Your task to perform on an android device: turn off location history Image 0: 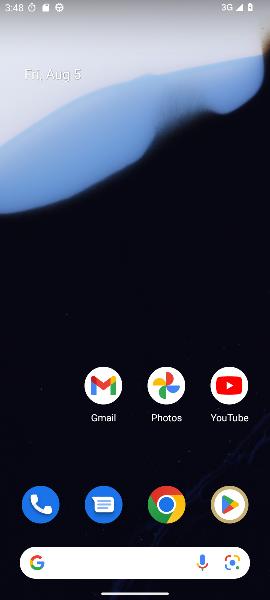
Step 0: drag from (64, 469) to (116, 263)
Your task to perform on an android device: turn off location history Image 1: 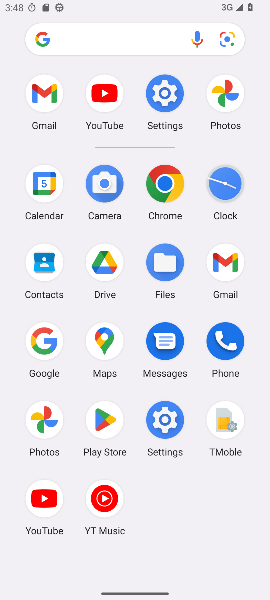
Step 1: click (163, 423)
Your task to perform on an android device: turn off location history Image 2: 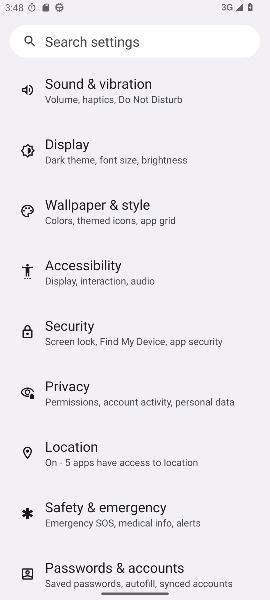
Step 2: click (128, 454)
Your task to perform on an android device: turn off location history Image 3: 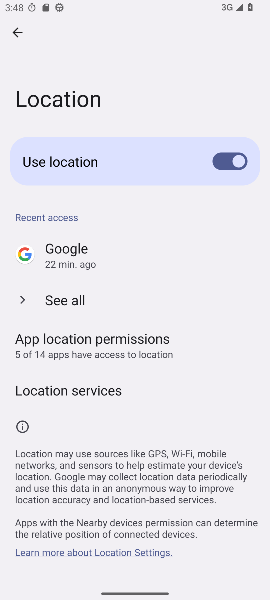
Step 3: drag from (120, 513) to (167, 265)
Your task to perform on an android device: turn off location history Image 4: 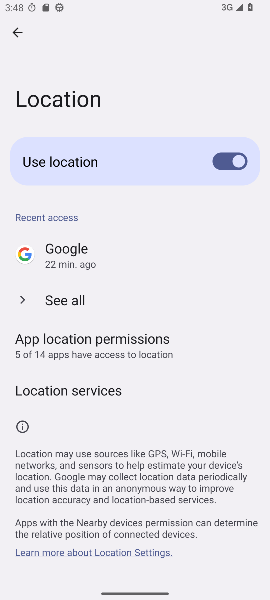
Step 4: click (107, 386)
Your task to perform on an android device: turn off location history Image 5: 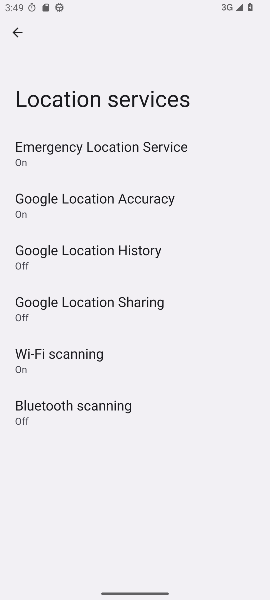
Step 5: task complete